Your task to perform on an android device: Go to Wikipedia Image 0: 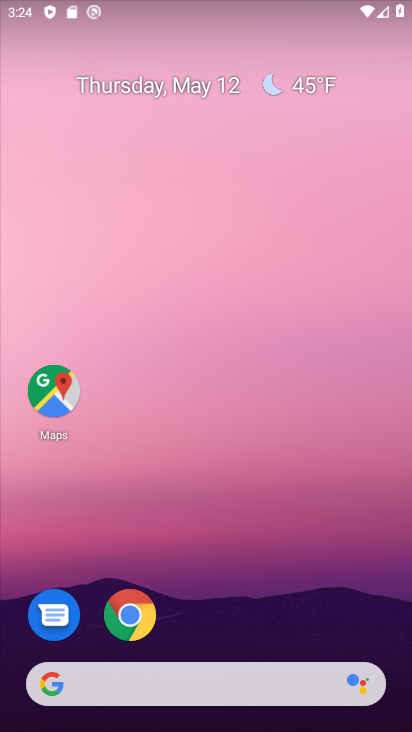
Step 0: click (149, 620)
Your task to perform on an android device: Go to Wikipedia Image 1: 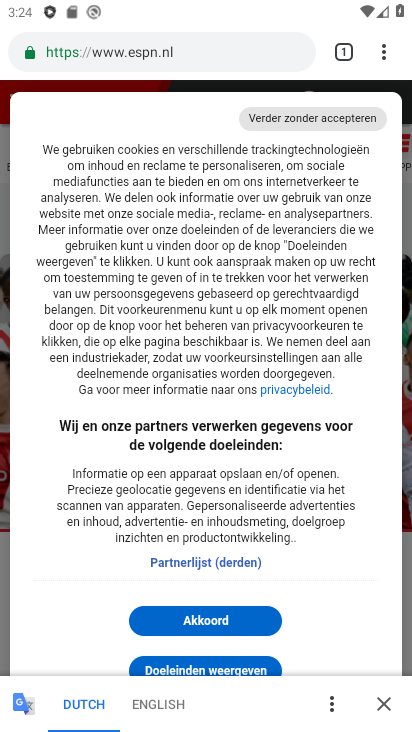
Step 1: click (351, 61)
Your task to perform on an android device: Go to Wikipedia Image 2: 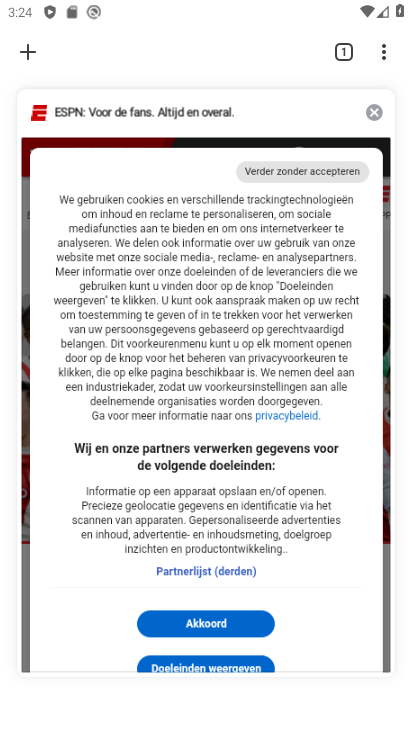
Step 2: click (381, 119)
Your task to perform on an android device: Go to Wikipedia Image 3: 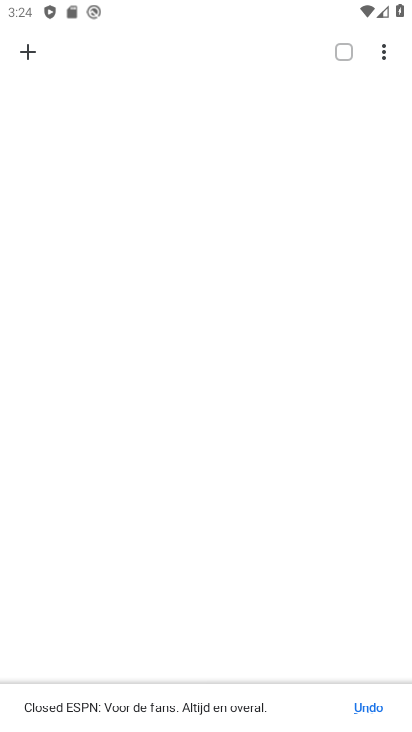
Step 3: click (20, 48)
Your task to perform on an android device: Go to Wikipedia Image 4: 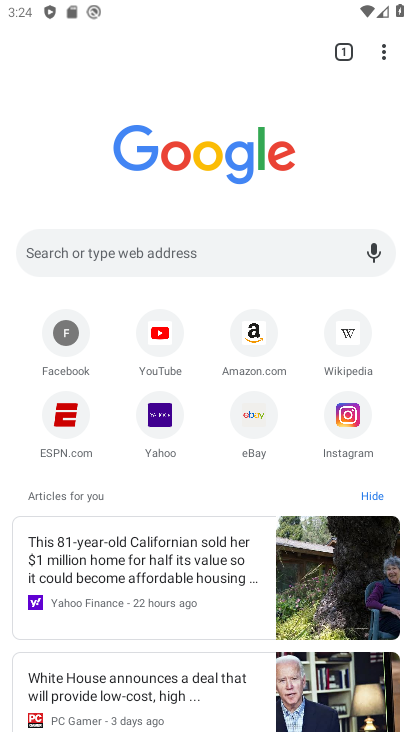
Step 4: click (359, 333)
Your task to perform on an android device: Go to Wikipedia Image 5: 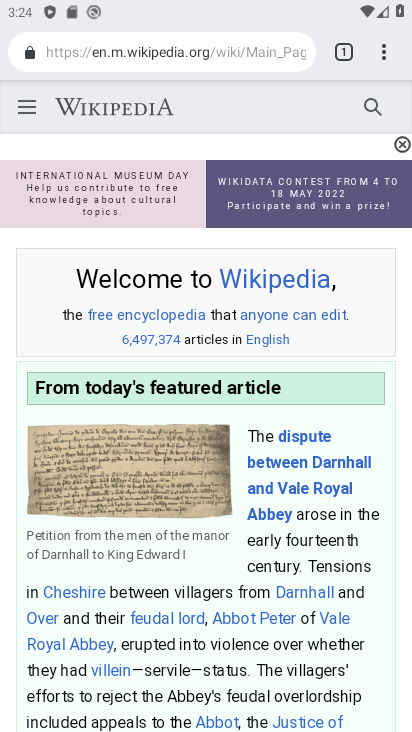
Step 5: task complete